Your task to perform on an android device: Open Google Chrome Image 0: 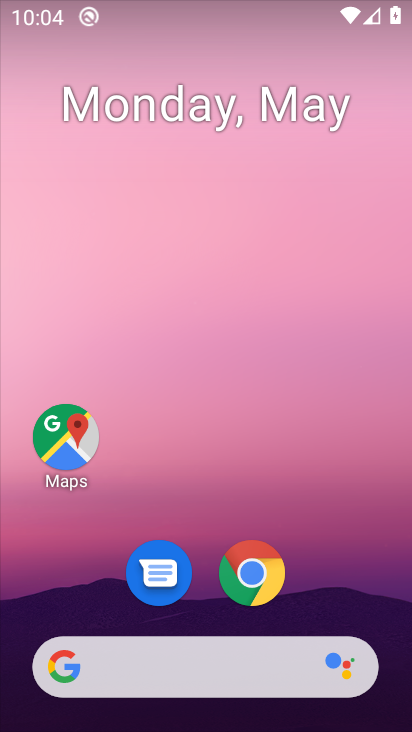
Step 0: click (241, 565)
Your task to perform on an android device: Open Google Chrome Image 1: 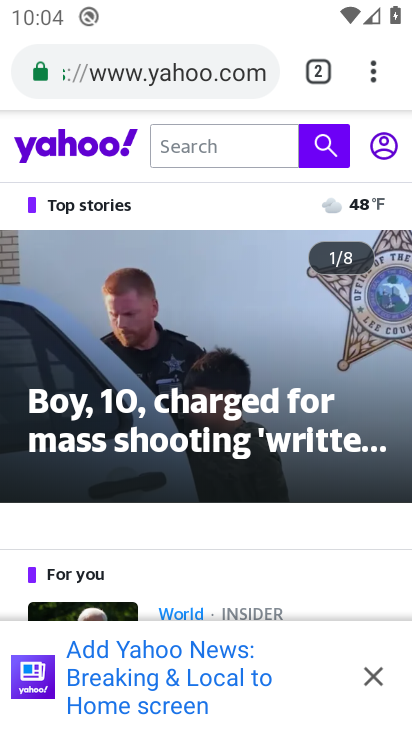
Step 1: task complete